Your task to perform on an android device: Open Youtube and go to "Your channel" Image 0: 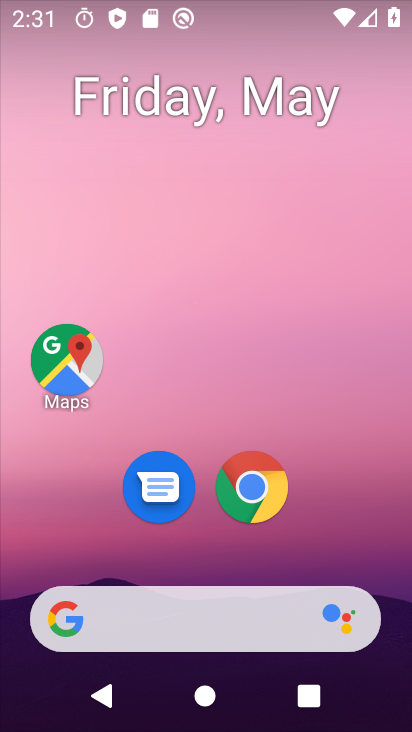
Step 0: drag from (203, 527) to (250, 71)
Your task to perform on an android device: Open Youtube and go to "Your channel" Image 1: 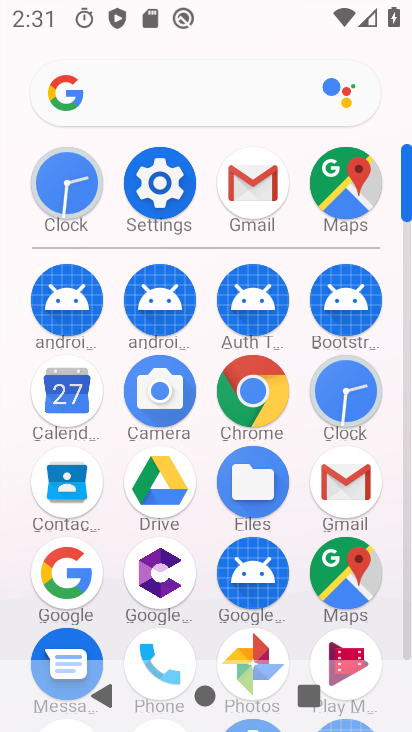
Step 1: drag from (192, 560) to (214, 56)
Your task to perform on an android device: Open Youtube and go to "Your channel" Image 2: 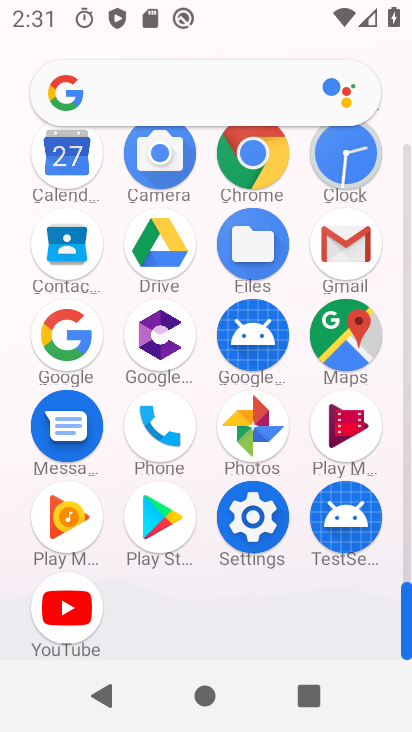
Step 2: click (67, 604)
Your task to perform on an android device: Open Youtube and go to "Your channel" Image 3: 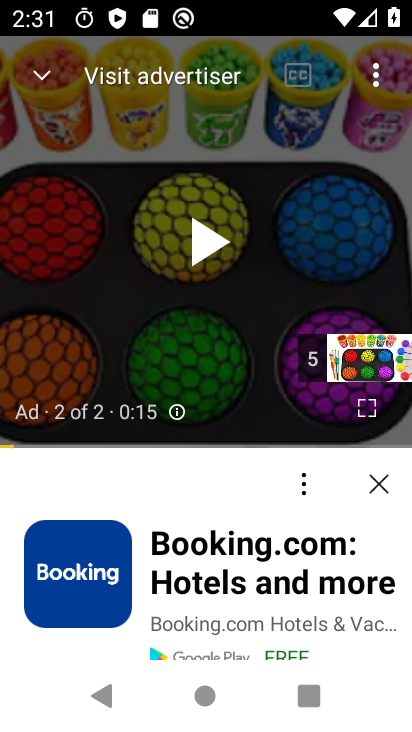
Step 3: click (40, 73)
Your task to perform on an android device: Open Youtube and go to "Your channel" Image 4: 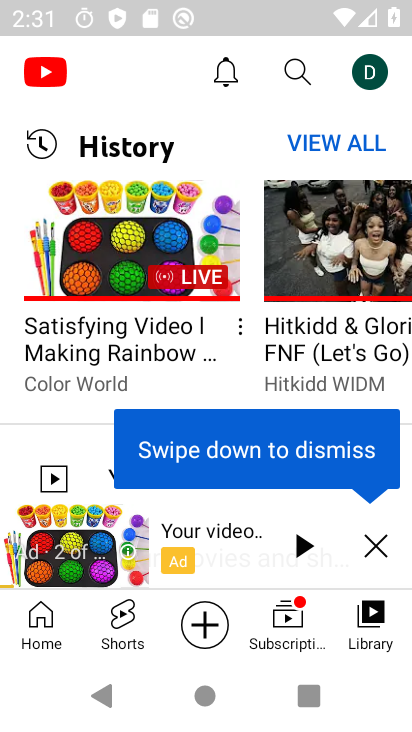
Step 4: click (357, 76)
Your task to perform on an android device: Open Youtube and go to "Your channel" Image 5: 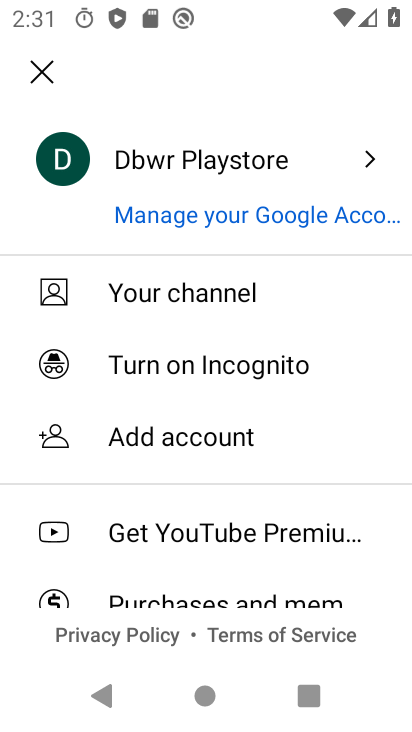
Step 5: click (146, 297)
Your task to perform on an android device: Open Youtube and go to "Your channel" Image 6: 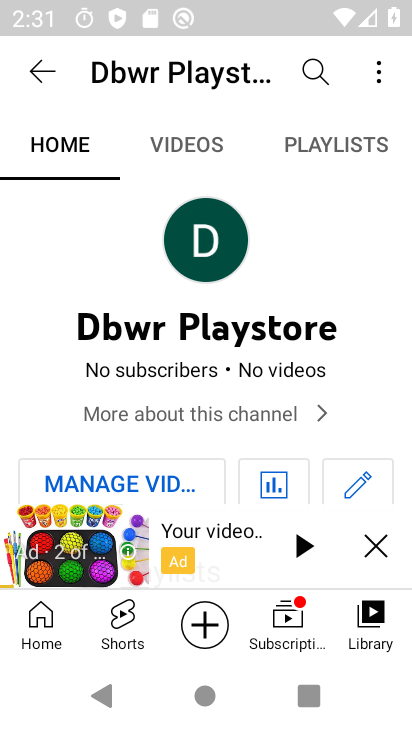
Step 6: task complete